Your task to perform on an android device: Open CNN.com Image 0: 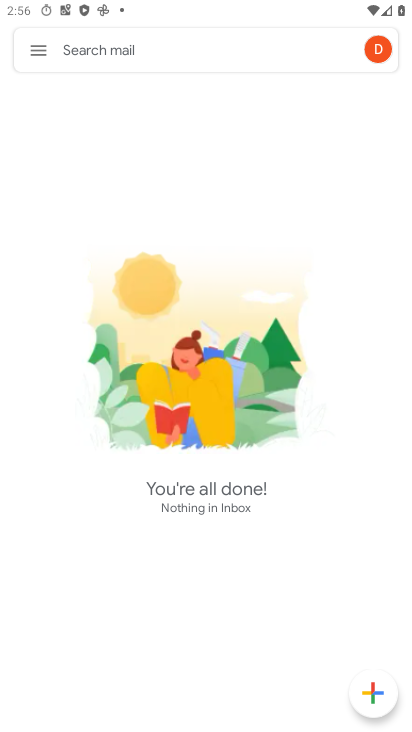
Step 0: press home button
Your task to perform on an android device: Open CNN.com Image 1: 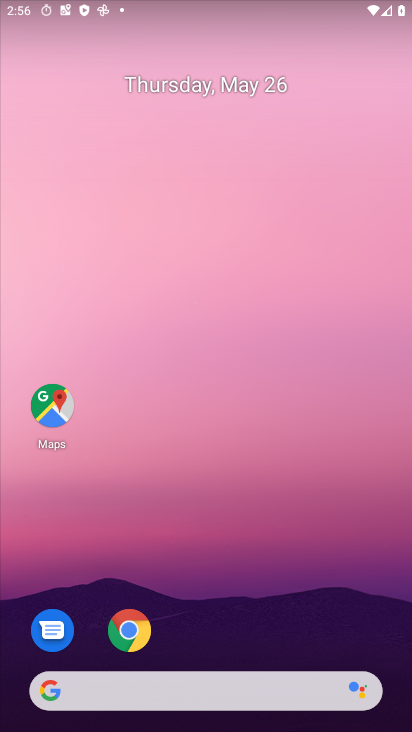
Step 1: click (127, 623)
Your task to perform on an android device: Open CNN.com Image 2: 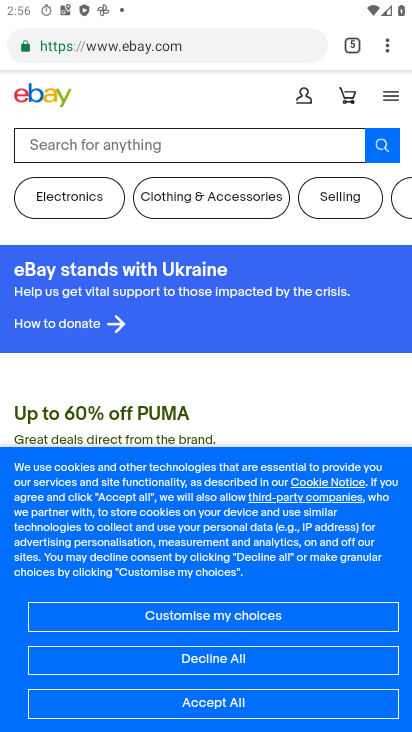
Step 2: click (357, 48)
Your task to perform on an android device: Open CNN.com Image 3: 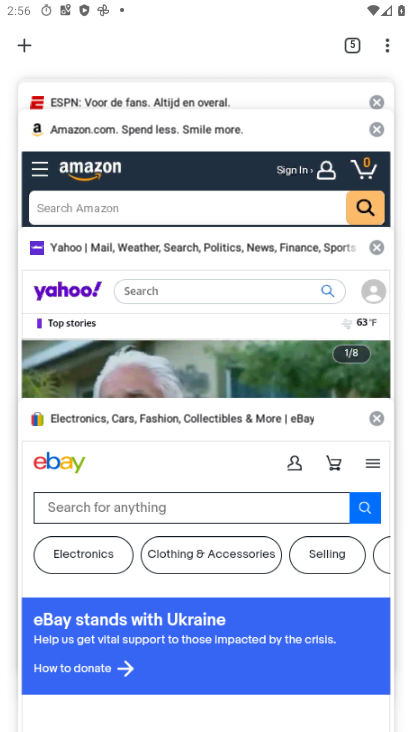
Step 3: drag from (143, 188) to (218, 531)
Your task to perform on an android device: Open CNN.com Image 4: 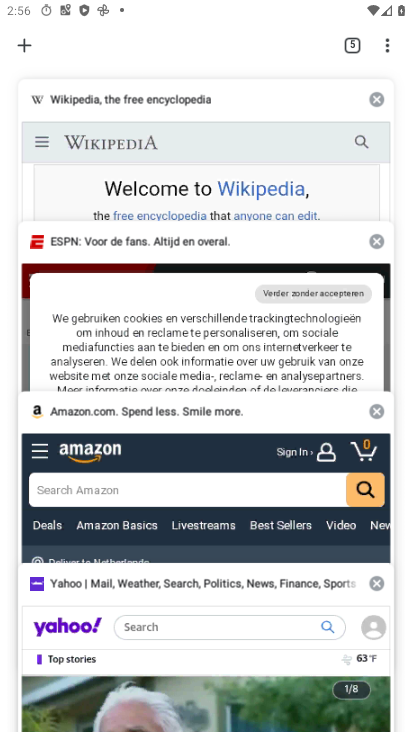
Step 4: drag from (183, 185) to (192, 405)
Your task to perform on an android device: Open CNN.com Image 5: 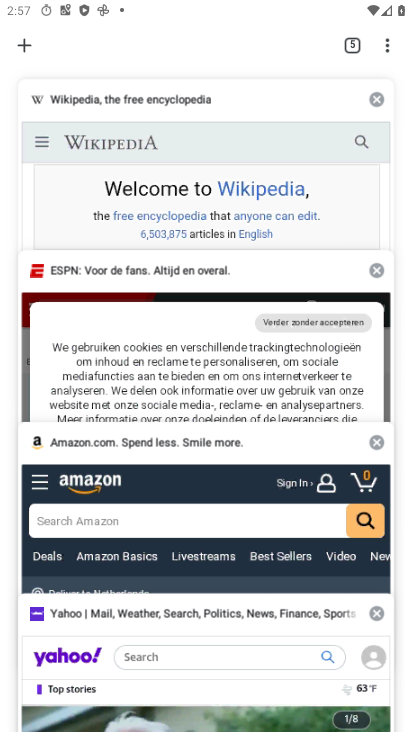
Step 5: click (17, 45)
Your task to perform on an android device: Open CNN.com Image 6: 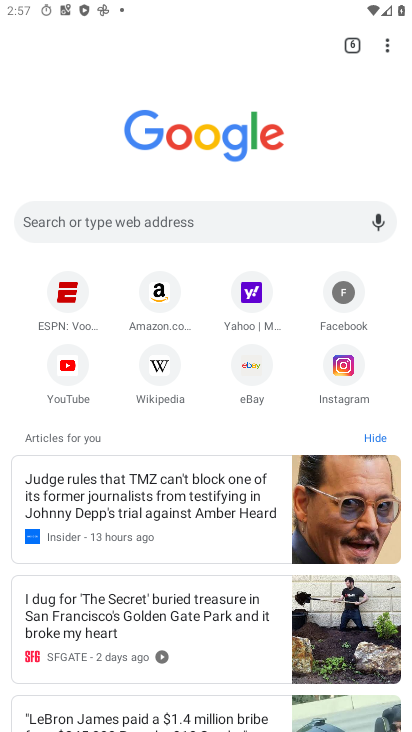
Step 6: click (139, 220)
Your task to perform on an android device: Open CNN.com Image 7: 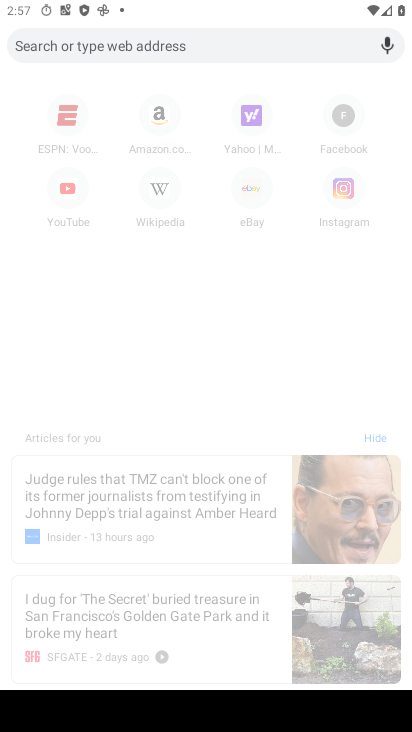
Step 7: type "CNN.com"
Your task to perform on an android device: Open CNN.com Image 8: 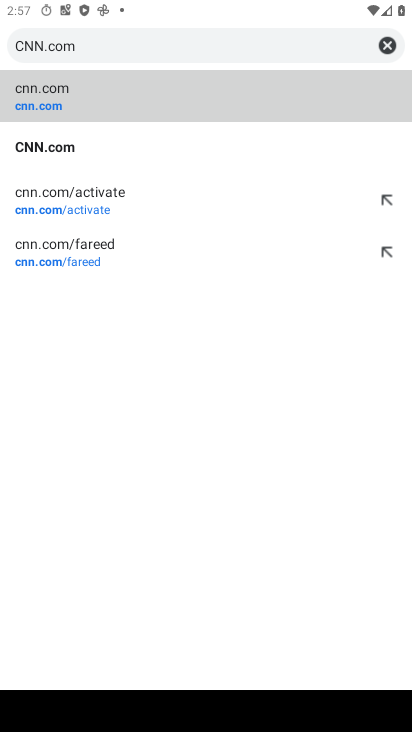
Step 8: click (298, 94)
Your task to perform on an android device: Open CNN.com Image 9: 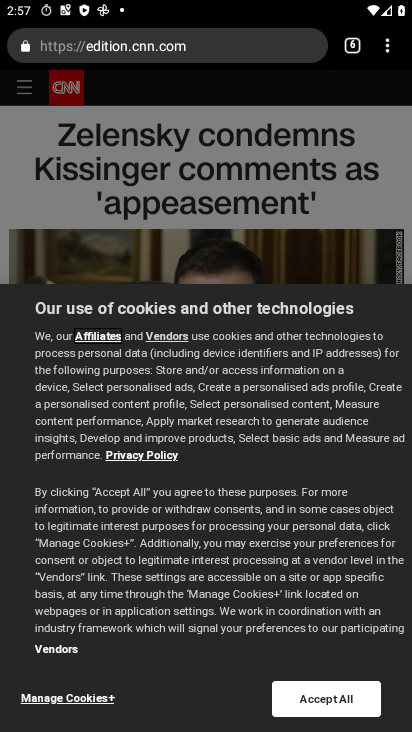
Step 9: task complete